Your task to perform on an android device: refresh tabs in the chrome app Image 0: 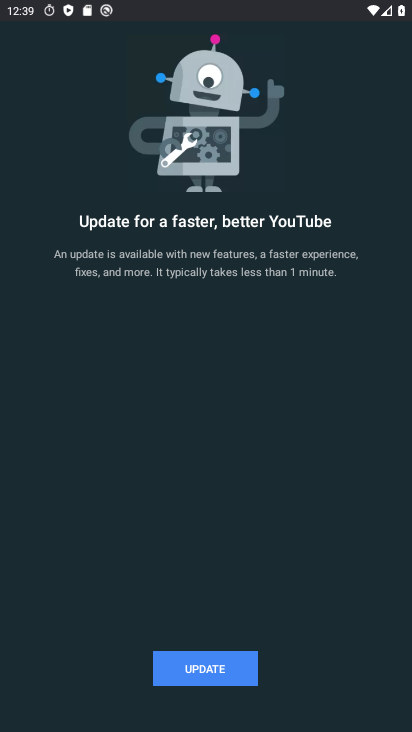
Step 0: press back button
Your task to perform on an android device: refresh tabs in the chrome app Image 1: 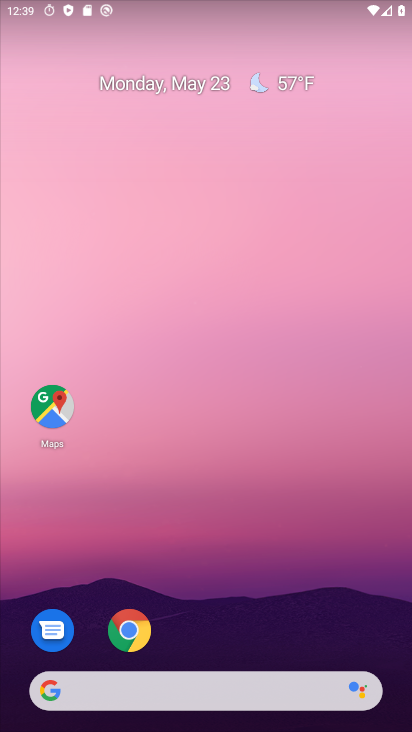
Step 1: drag from (237, 605) to (229, 52)
Your task to perform on an android device: refresh tabs in the chrome app Image 2: 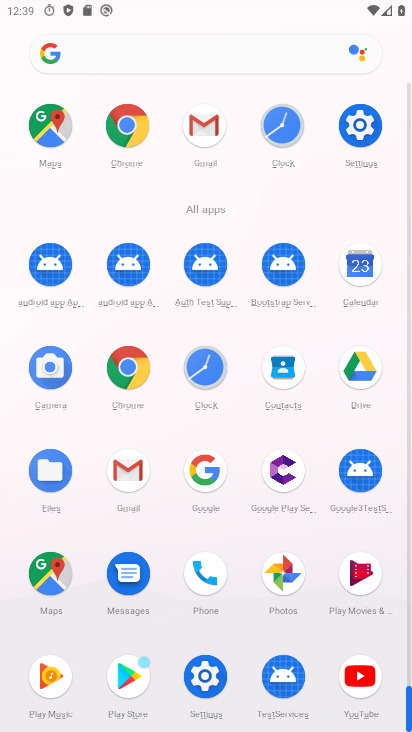
Step 2: drag from (10, 616) to (9, 299)
Your task to perform on an android device: refresh tabs in the chrome app Image 3: 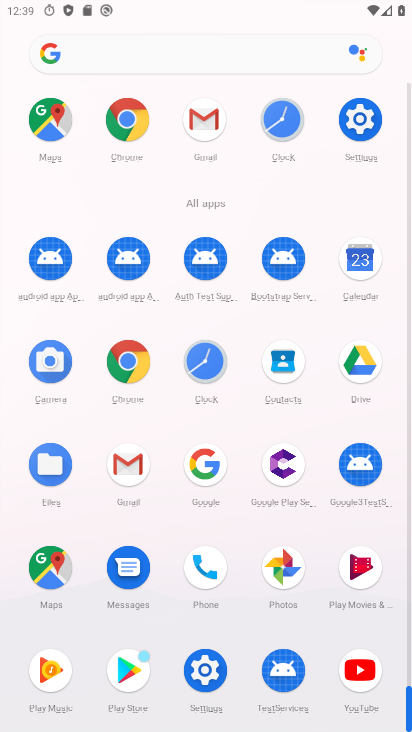
Step 3: click (129, 363)
Your task to perform on an android device: refresh tabs in the chrome app Image 4: 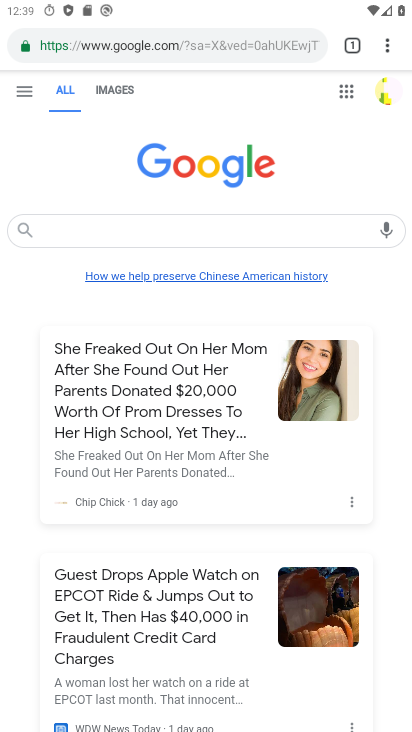
Step 4: click (382, 45)
Your task to perform on an android device: refresh tabs in the chrome app Image 5: 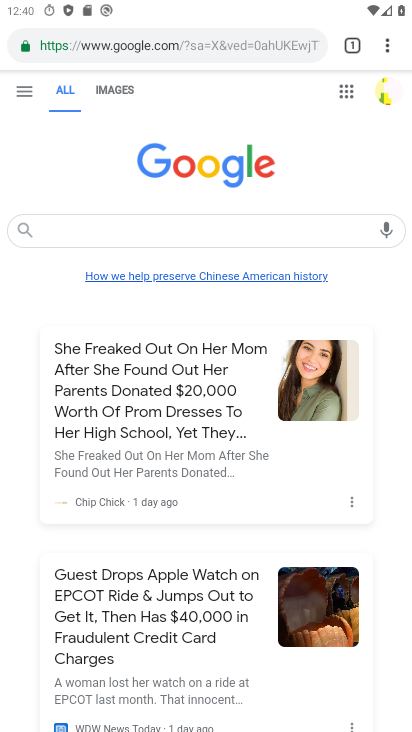
Step 5: task complete